Your task to perform on an android device: check the backup settings in the google photos Image 0: 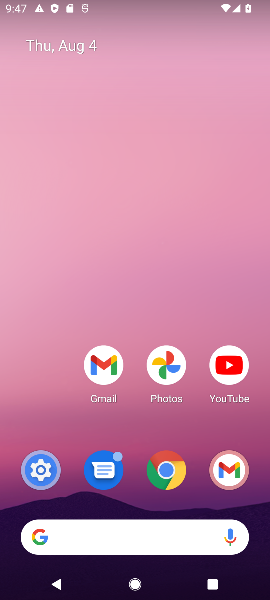
Step 0: click (161, 368)
Your task to perform on an android device: check the backup settings in the google photos Image 1: 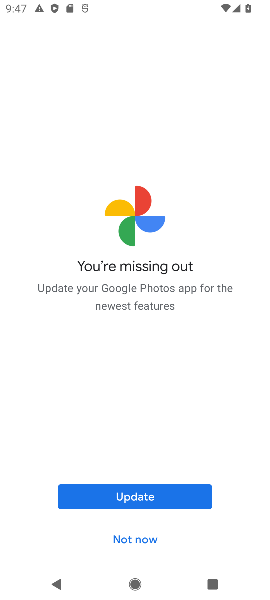
Step 1: click (119, 490)
Your task to perform on an android device: check the backup settings in the google photos Image 2: 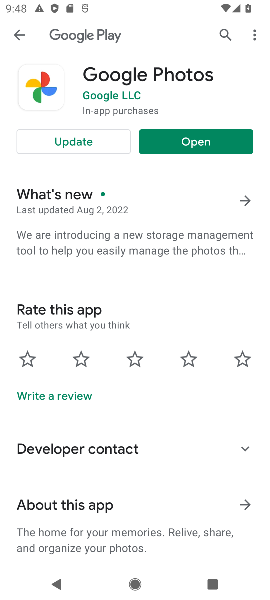
Step 2: click (101, 139)
Your task to perform on an android device: check the backup settings in the google photos Image 3: 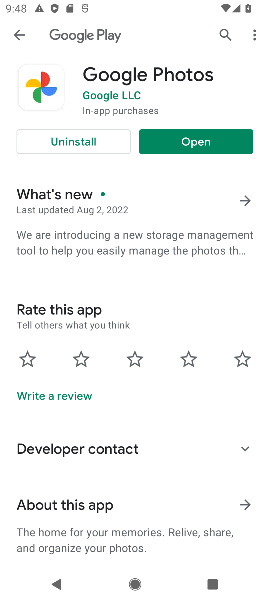
Step 3: click (226, 147)
Your task to perform on an android device: check the backup settings in the google photos Image 4: 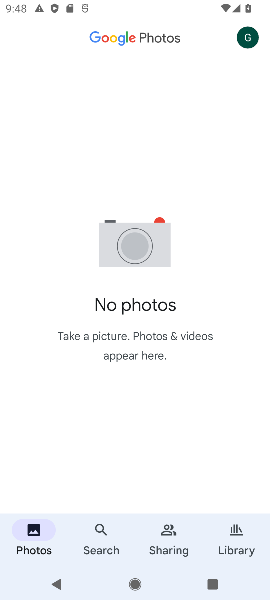
Step 4: click (252, 36)
Your task to perform on an android device: check the backup settings in the google photos Image 5: 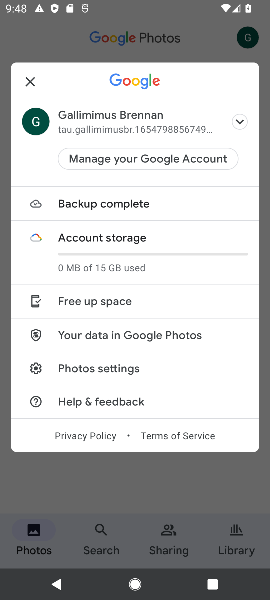
Step 5: click (84, 362)
Your task to perform on an android device: check the backup settings in the google photos Image 6: 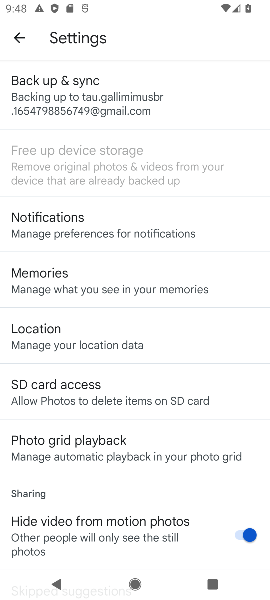
Step 6: click (119, 99)
Your task to perform on an android device: check the backup settings in the google photos Image 7: 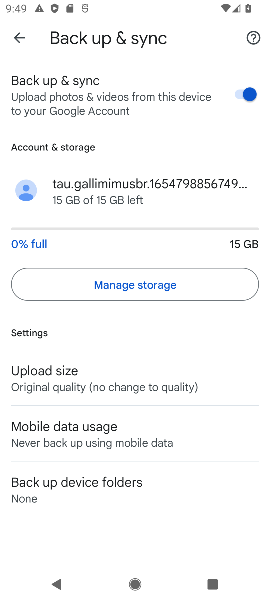
Step 7: task complete